Your task to perform on an android device: Open privacy settings Image 0: 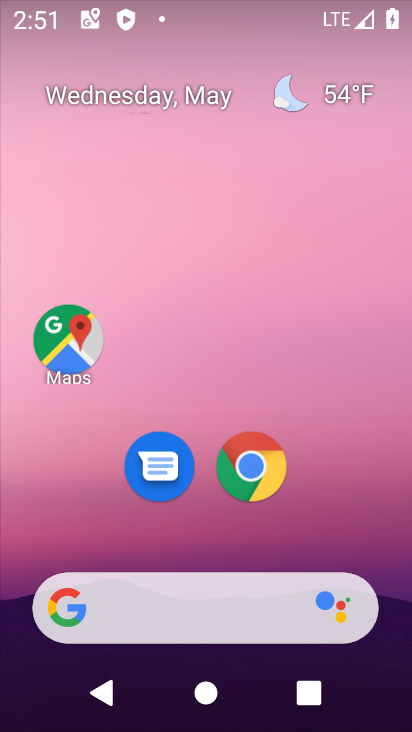
Step 0: click (228, 470)
Your task to perform on an android device: Open privacy settings Image 1: 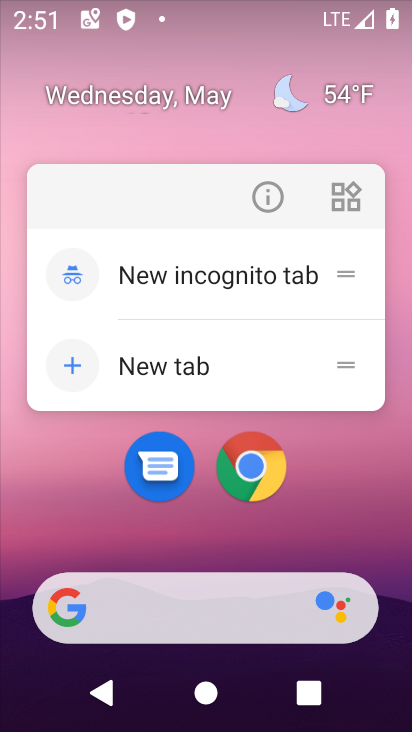
Step 1: drag from (351, 516) to (318, 226)
Your task to perform on an android device: Open privacy settings Image 2: 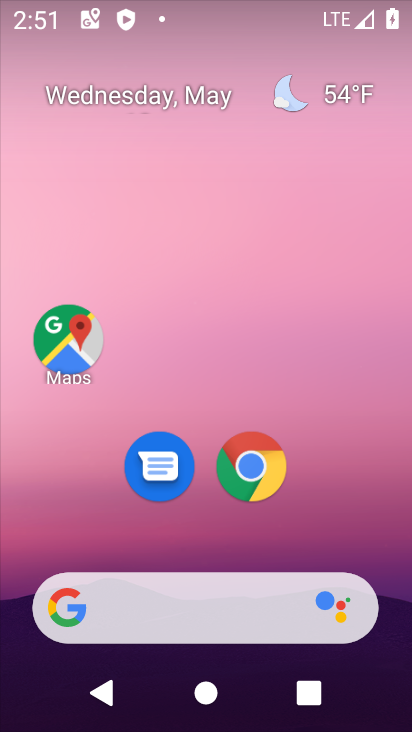
Step 2: drag from (405, 543) to (283, 12)
Your task to perform on an android device: Open privacy settings Image 3: 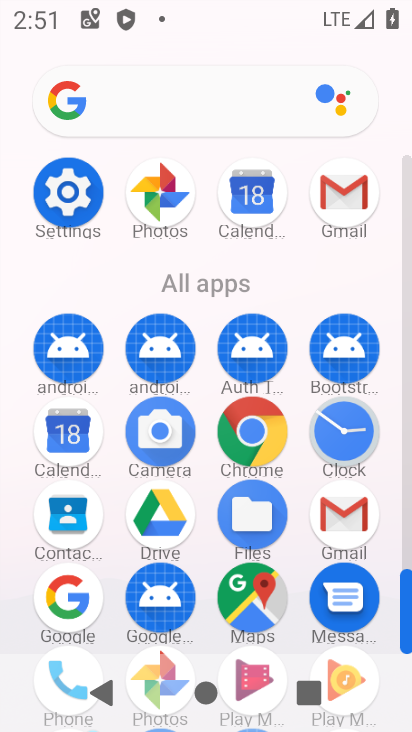
Step 3: click (91, 192)
Your task to perform on an android device: Open privacy settings Image 4: 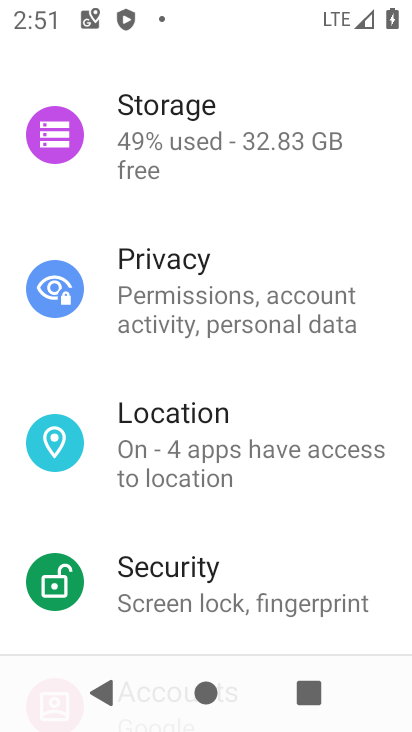
Step 4: click (241, 324)
Your task to perform on an android device: Open privacy settings Image 5: 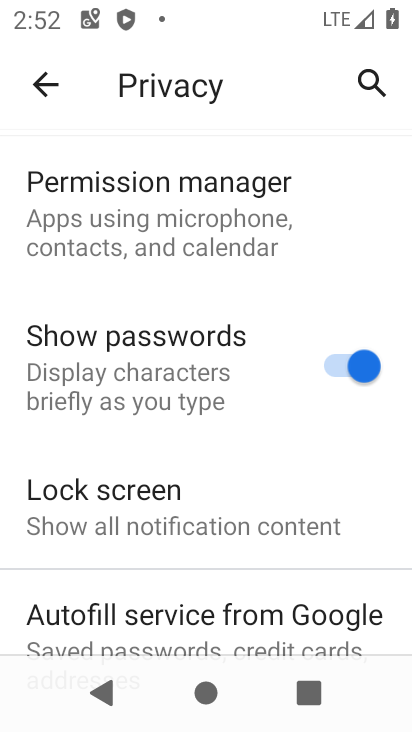
Step 5: task complete